Your task to perform on an android device: Open calendar and show me the fourth week of next month Image 0: 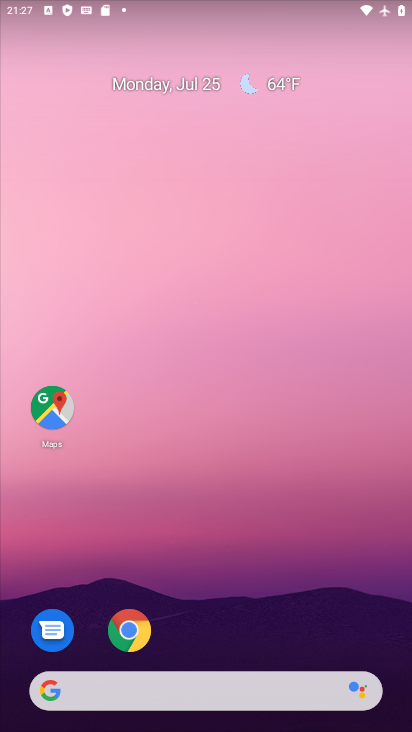
Step 0: drag from (384, 644) to (359, 78)
Your task to perform on an android device: Open calendar and show me the fourth week of next month Image 1: 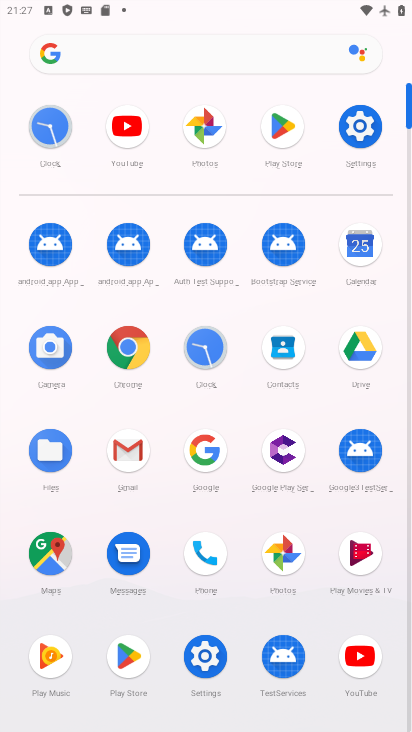
Step 1: click (358, 245)
Your task to perform on an android device: Open calendar and show me the fourth week of next month Image 2: 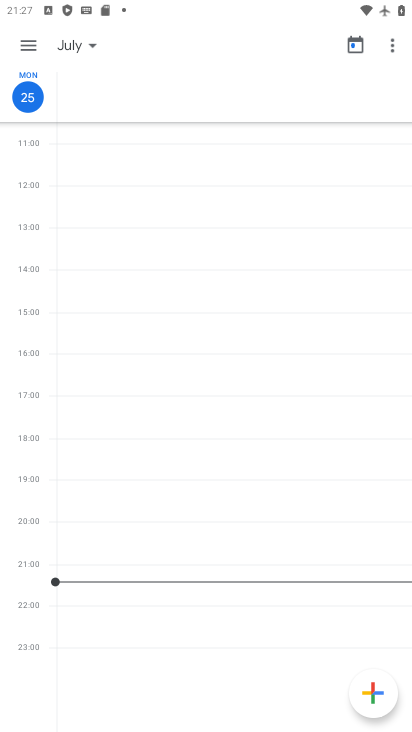
Step 2: click (27, 50)
Your task to perform on an android device: Open calendar and show me the fourth week of next month Image 3: 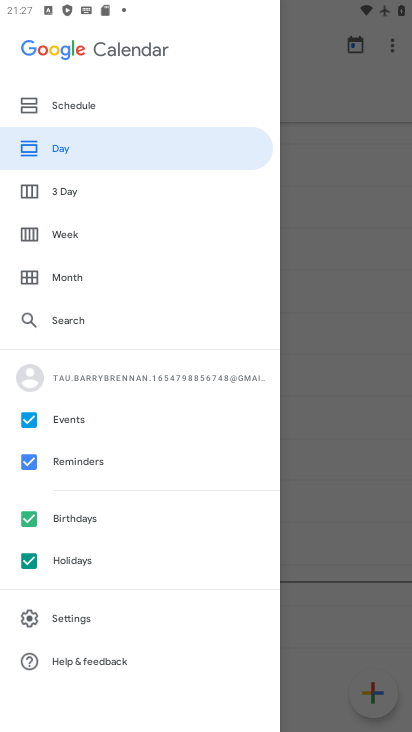
Step 3: click (66, 234)
Your task to perform on an android device: Open calendar and show me the fourth week of next month Image 4: 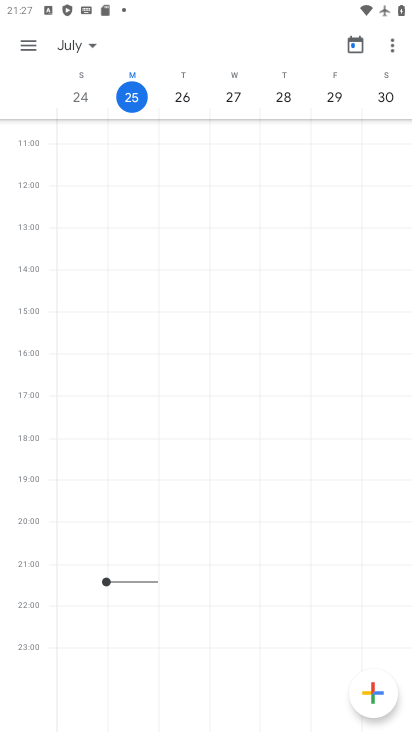
Step 4: click (93, 43)
Your task to perform on an android device: Open calendar and show me the fourth week of next month Image 5: 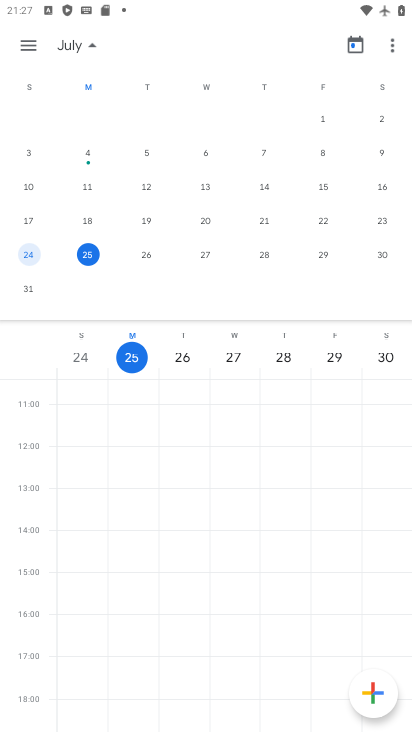
Step 5: drag from (387, 216) to (0, 261)
Your task to perform on an android device: Open calendar and show me the fourth week of next month Image 6: 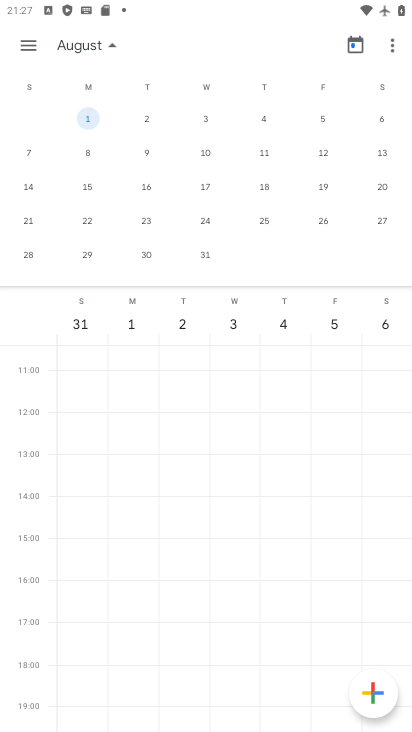
Step 6: click (28, 254)
Your task to perform on an android device: Open calendar and show me the fourth week of next month Image 7: 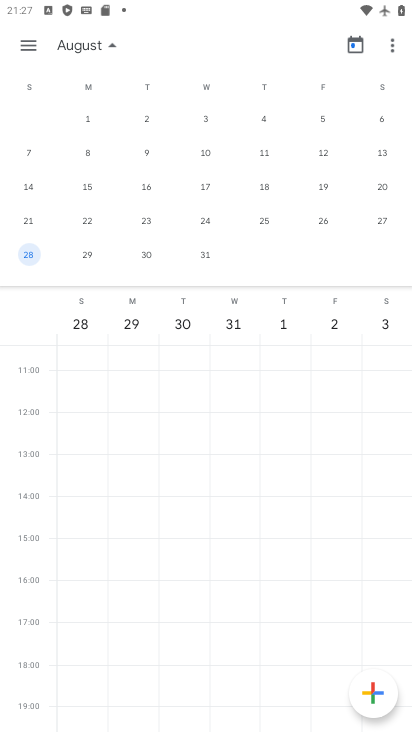
Step 7: task complete